Your task to perform on an android device: move an email to a new category in the gmail app Image 0: 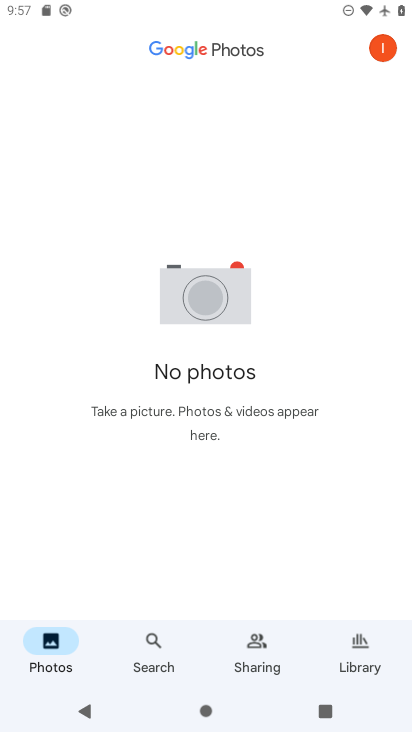
Step 0: press home button
Your task to perform on an android device: move an email to a new category in the gmail app Image 1: 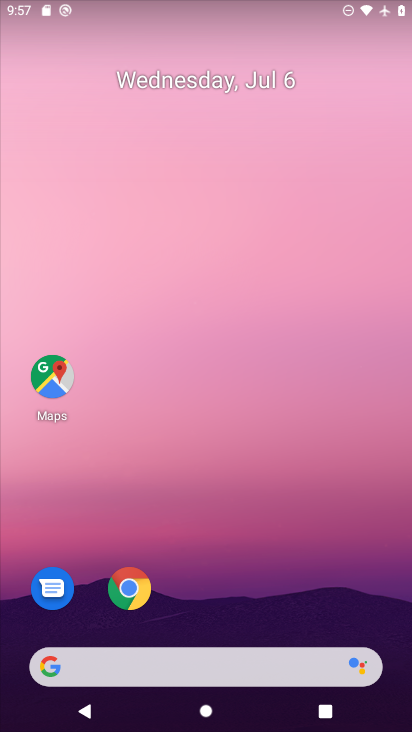
Step 1: drag from (150, 670) to (343, 175)
Your task to perform on an android device: move an email to a new category in the gmail app Image 2: 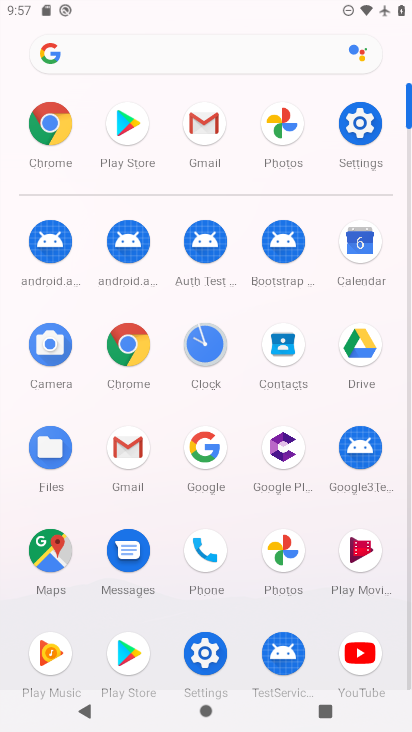
Step 2: click (200, 131)
Your task to perform on an android device: move an email to a new category in the gmail app Image 3: 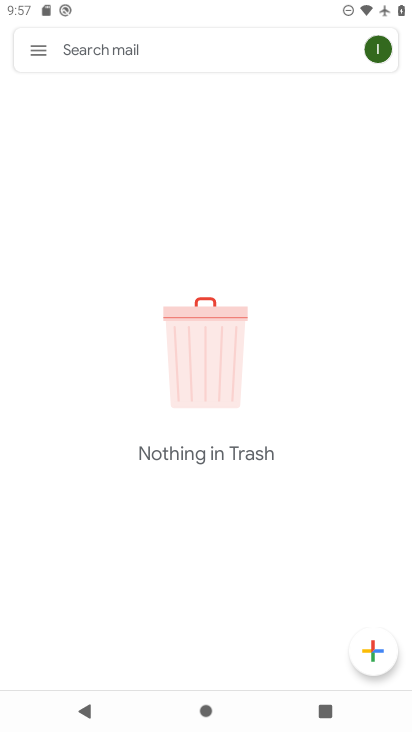
Step 3: click (41, 57)
Your task to perform on an android device: move an email to a new category in the gmail app Image 4: 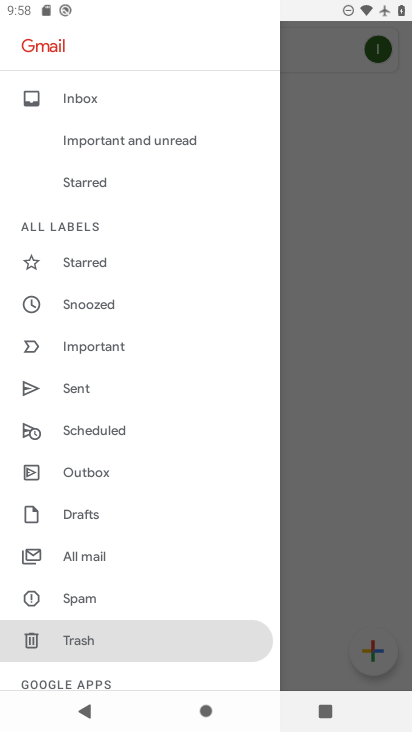
Step 4: click (89, 556)
Your task to perform on an android device: move an email to a new category in the gmail app Image 5: 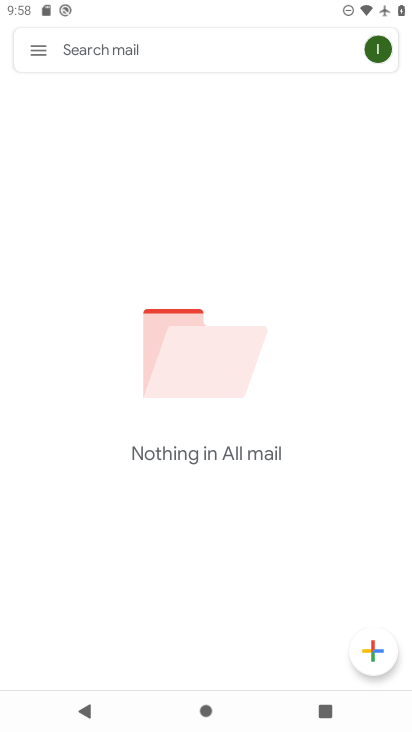
Step 5: task complete